Your task to perform on an android device: Open Google Chrome Image 0: 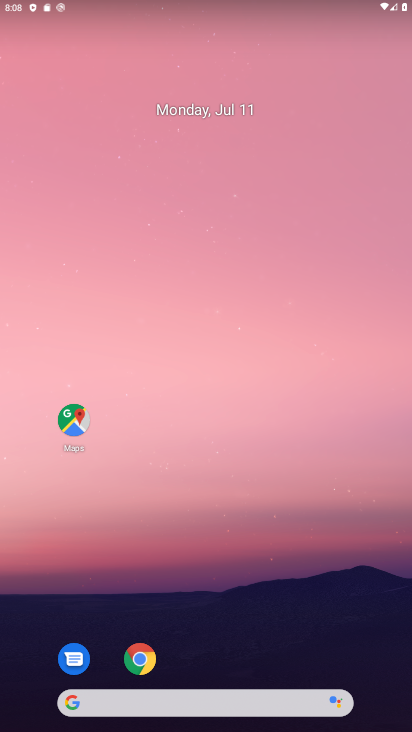
Step 0: click (136, 656)
Your task to perform on an android device: Open Google Chrome Image 1: 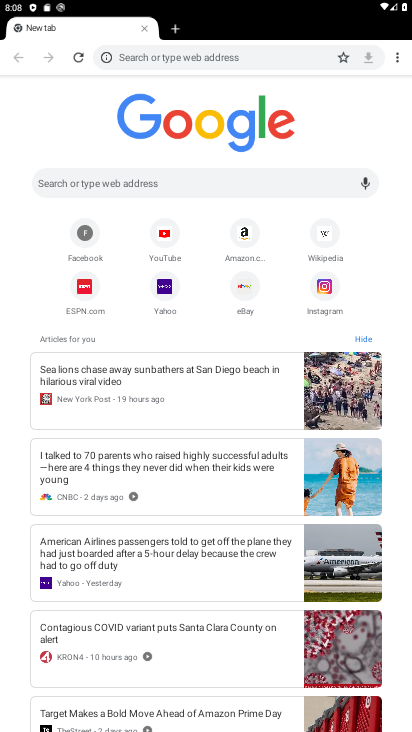
Step 1: task complete